Your task to perform on an android device: Go to ESPN.com Image 0: 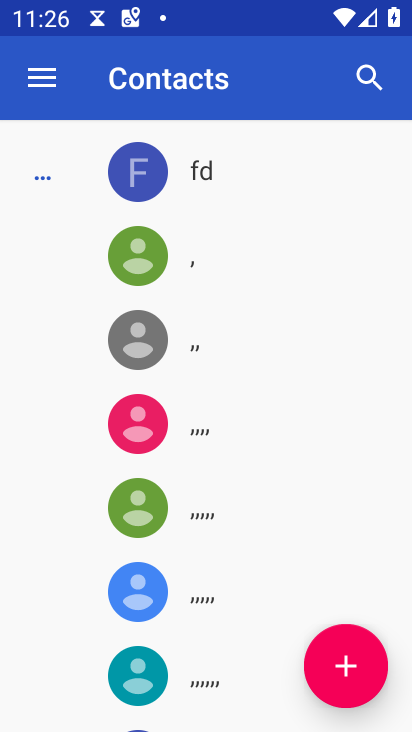
Step 0: press home button
Your task to perform on an android device: Go to ESPN.com Image 1: 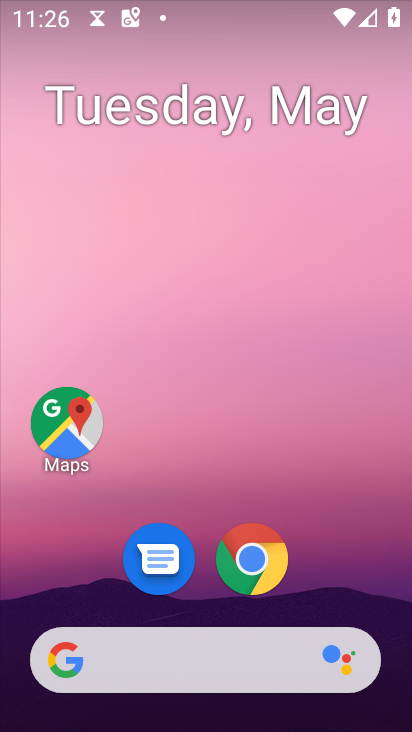
Step 1: click (270, 568)
Your task to perform on an android device: Go to ESPN.com Image 2: 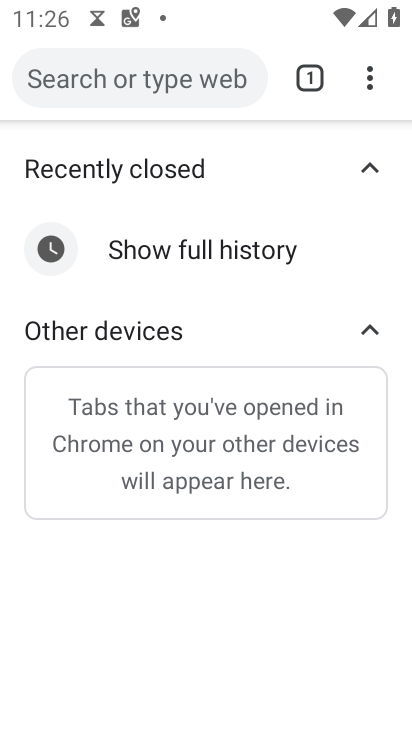
Step 2: click (190, 43)
Your task to perform on an android device: Go to ESPN.com Image 3: 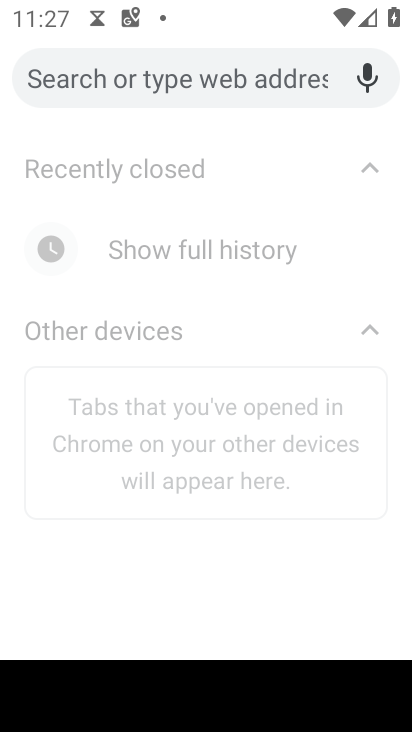
Step 3: type "espn"
Your task to perform on an android device: Go to ESPN.com Image 4: 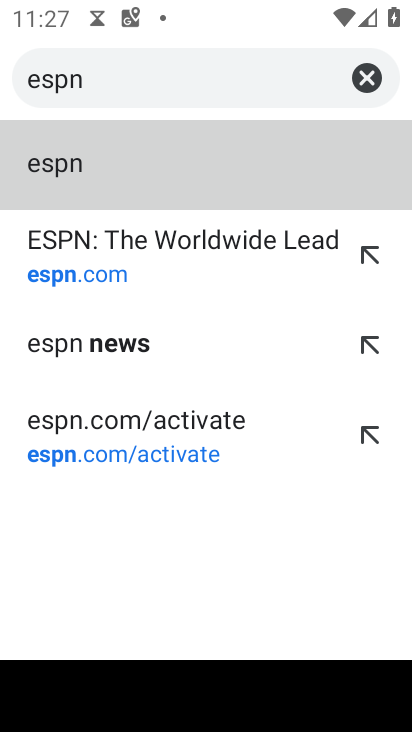
Step 4: click (98, 260)
Your task to perform on an android device: Go to ESPN.com Image 5: 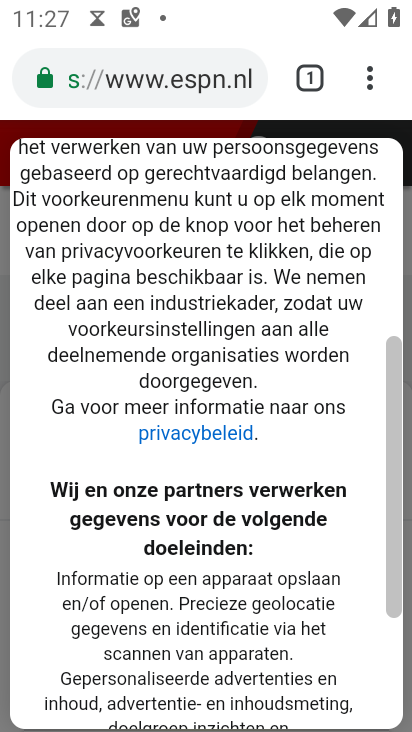
Step 5: task complete